Your task to perform on an android device: Go to Reddit.com Image 0: 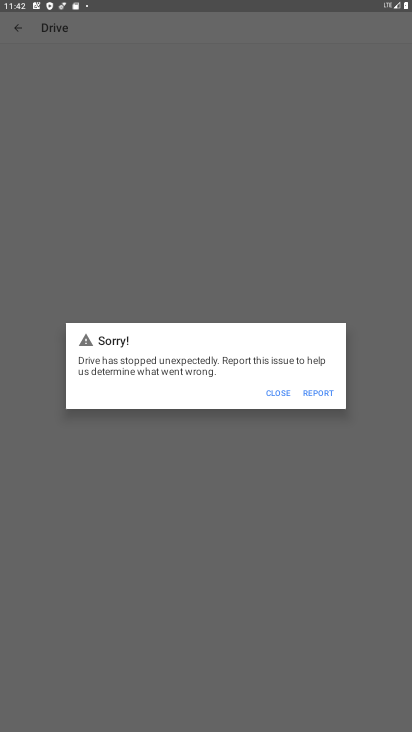
Step 0: press home button
Your task to perform on an android device: Go to Reddit.com Image 1: 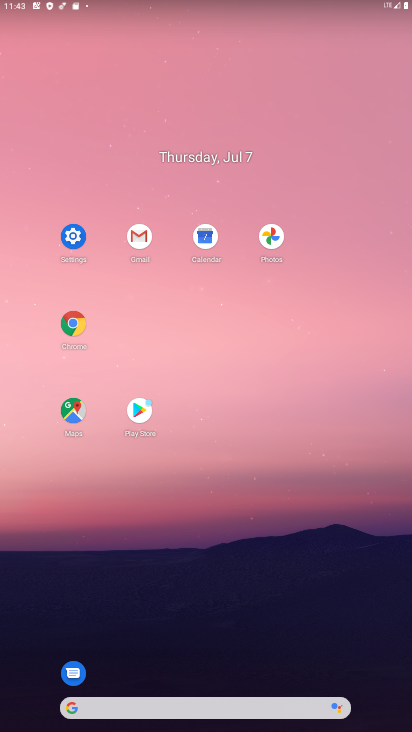
Step 1: click (80, 323)
Your task to perform on an android device: Go to Reddit.com Image 2: 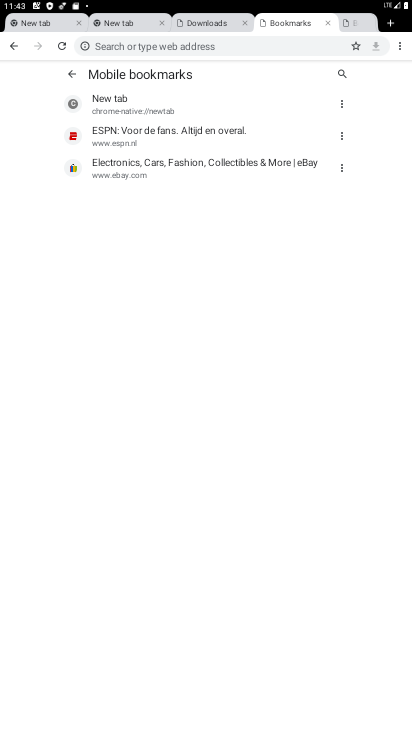
Step 2: click (384, 19)
Your task to perform on an android device: Go to Reddit.com Image 3: 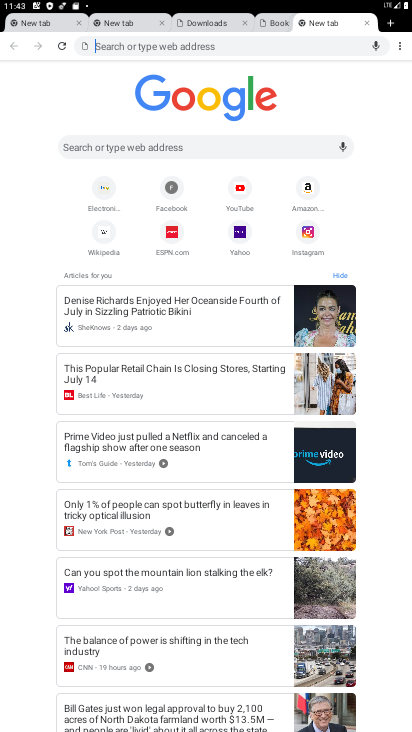
Step 3: click (187, 145)
Your task to perform on an android device: Go to Reddit.com Image 4: 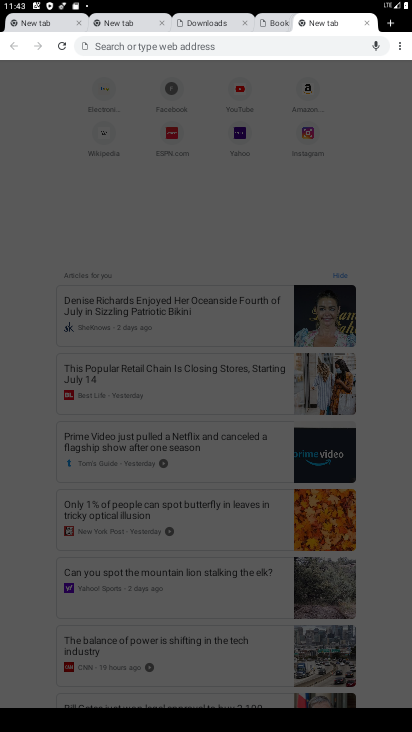
Step 4: type "reddit"
Your task to perform on an android device: Go to Reddit.com Image 5: 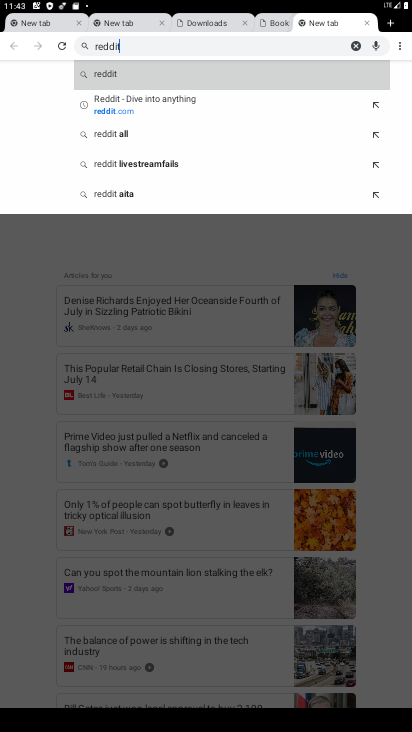
Step 5: click (207, 65)
Your task to perform on an android device: Go to Reddit.com Image 6: 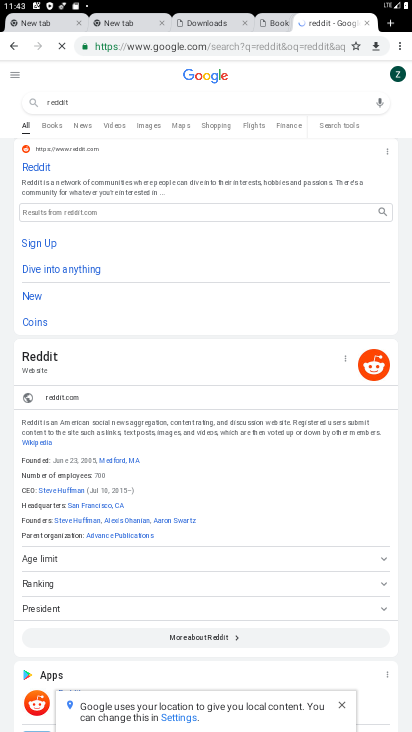
Step 6: click (33, 160)
Your task to perform on an android device: Go to Reddit.com Image 7: 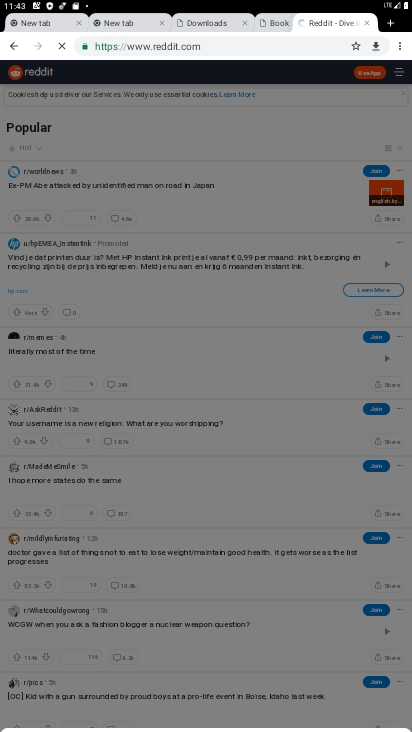
Step 7: task complete